Your task to perform on an android device: What's the weather going to be tomorrow? Image 0: 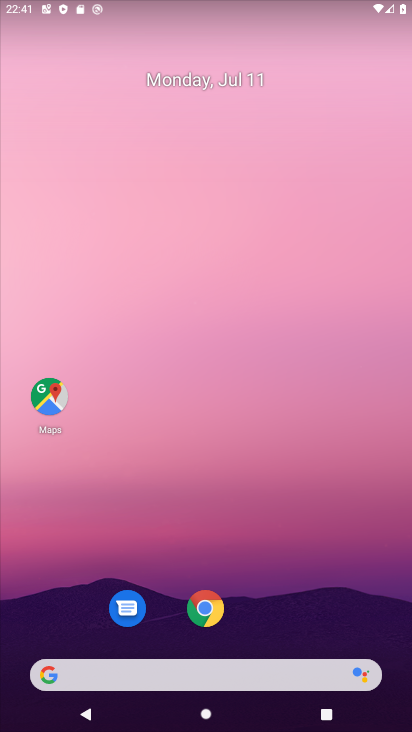
Step 0: click (91, 664)
Your task to perform on an android device: What's the weather going to be tomorrow? Image 1: 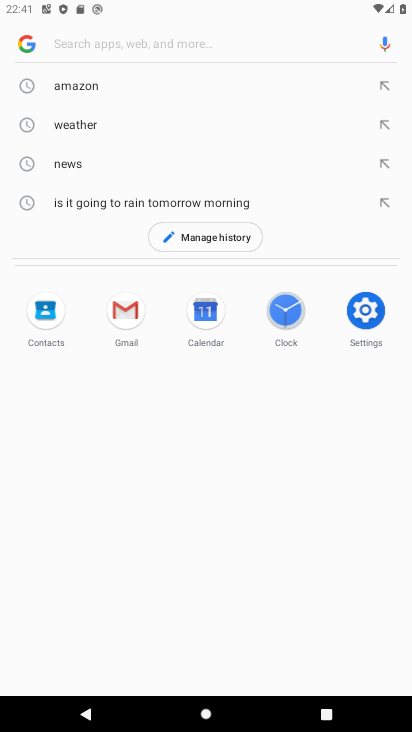
Step 1: type "What's the weather going to be tomorrow?"
Your task to perform on an android device: What's the weather going to be tomorrow? Image 2: 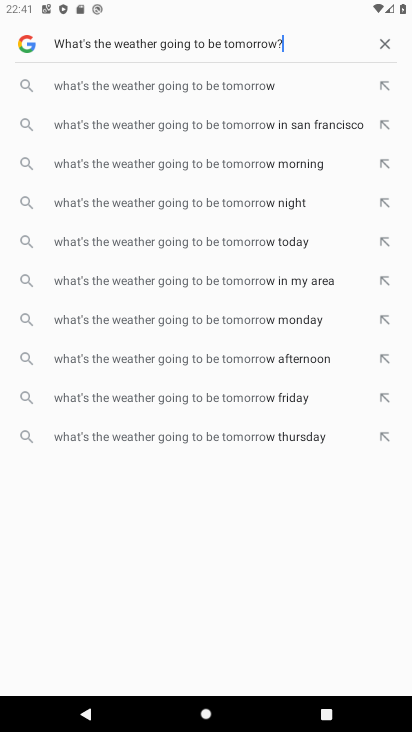
Step 2: type ""
Your task to perform on an android device: What's the weather going to be tomorrow? Image 3: 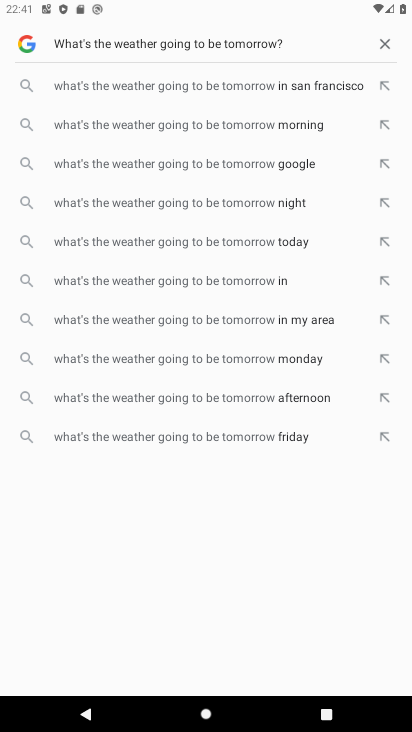
Step 3: type ""
Your task to perform on an android device: What's the weather going to be tomorrow? Image 4: 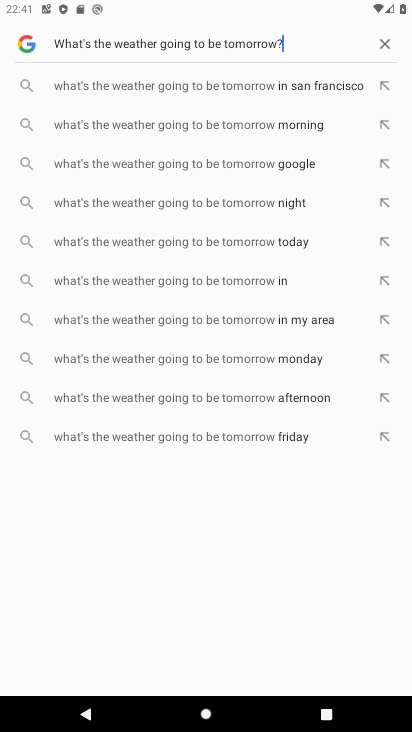
Step 4: type ""
Your task to perform on an android device: What's the weather going to be tomorrow? Image 5: 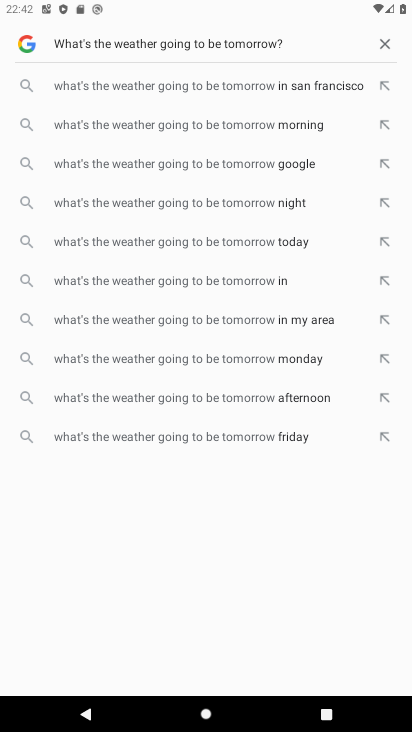
Step 5: task complete